Your task to perform on an android device: toggle sleep mode Image 0: 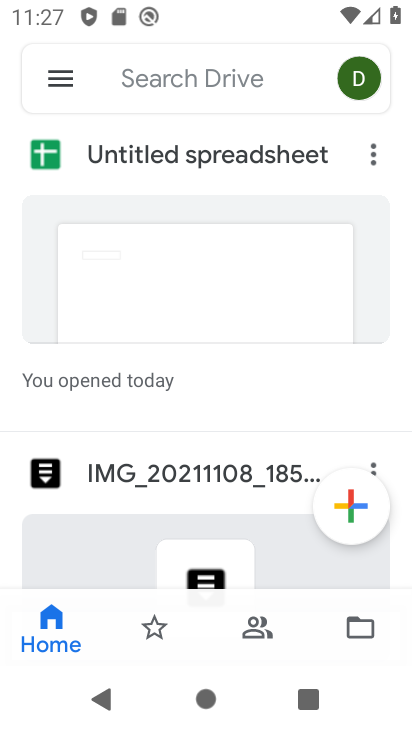
Step 0: press home button
Your task to perform on an android device: toggle sleep mode Image 1: 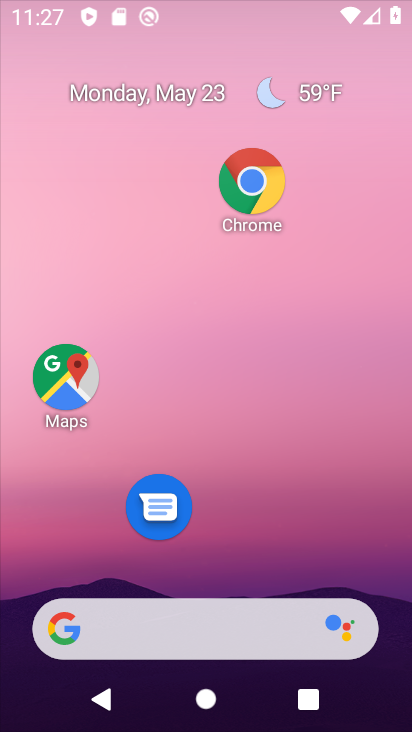
Step 1: drag from (273, 512) to (298, 275)
Your task to perform on an android device: toggle sleep mode Image 2: 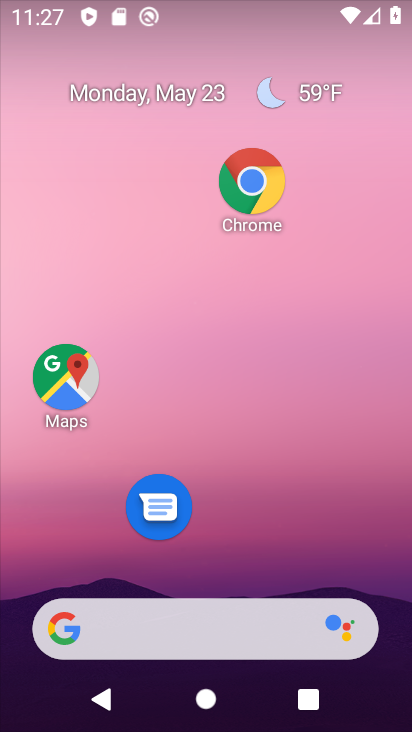
Step 2: drag from (242, 518) to (263, 239)
Your task to perform on an android device: toggle sleep mode Image 3: 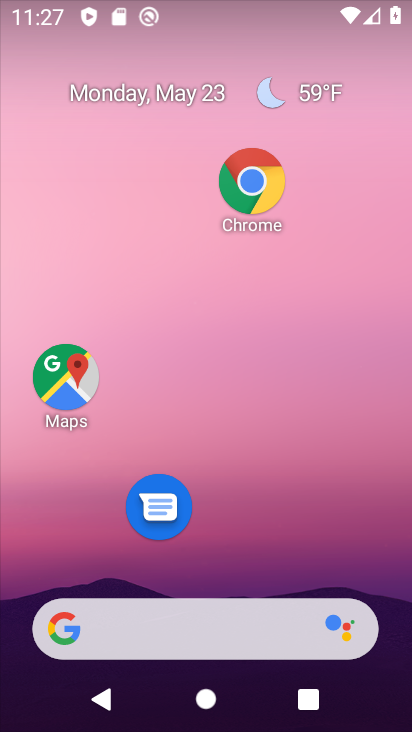
Step 3: drag from (272, 485) to (326, 112)
Your task to perform on an android device: toggle sleep mode Image 4: 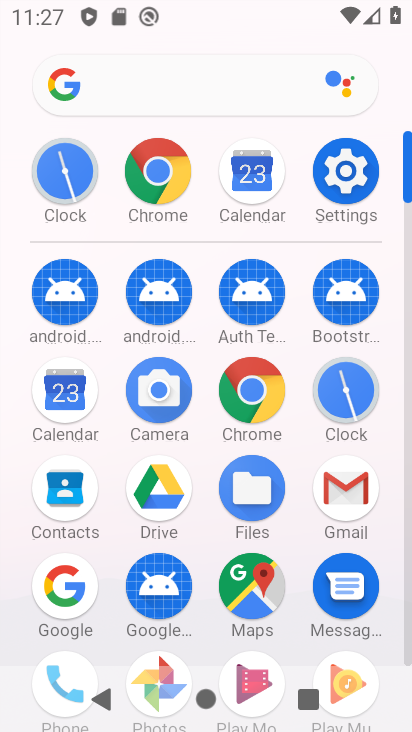
Step 4: click (341, 179)
Your task to perform on an android device: toggle sleep mode Image 5: 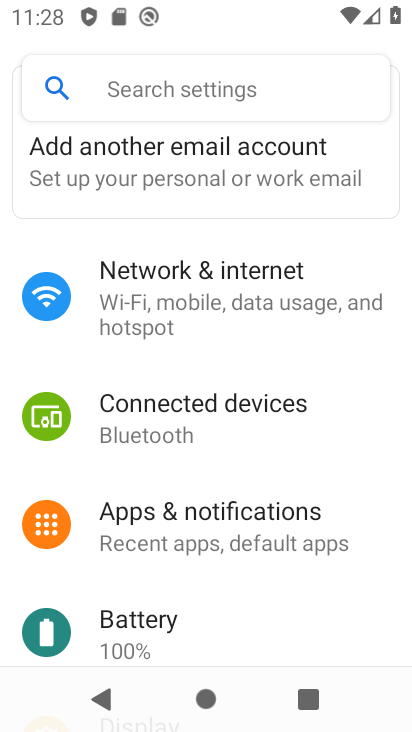
Step 5: task complete